Your task to perform on an android device: check google app version Image 0: 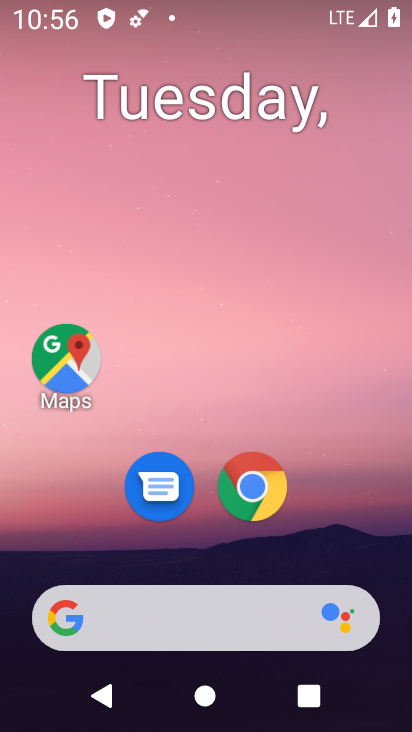
Step 0: drag from (320, 546) to (303, 115)
Your task to perform on an android device: check google app version Image 1: 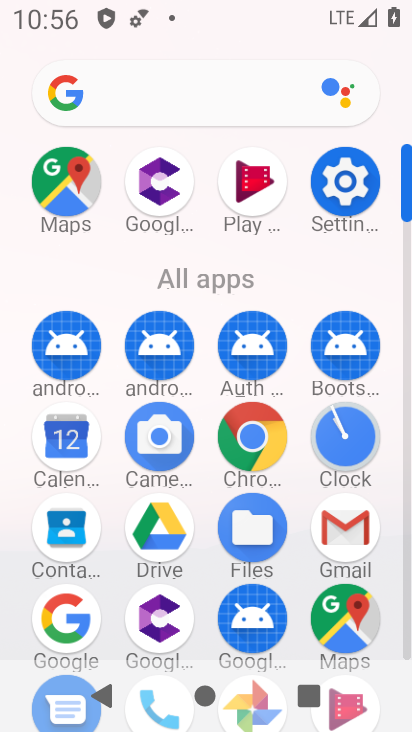
Step 1: drag from (291, 499) to (310, 228)
Your task to perform on an android device: check google app version Image 2: 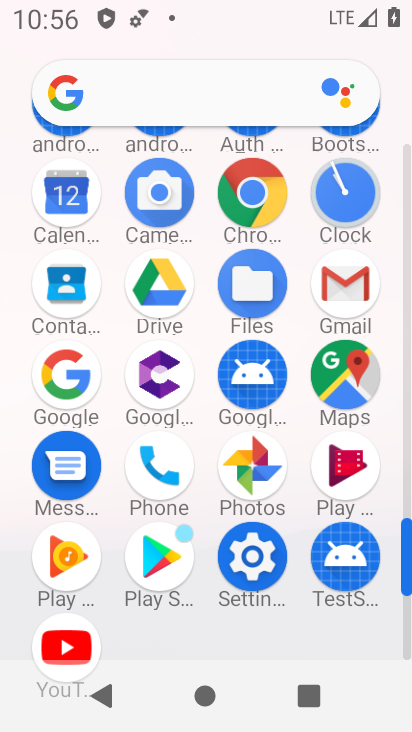
Step 2: click (72, 373)
Your task to perform on an android device: check google app version Image 3: 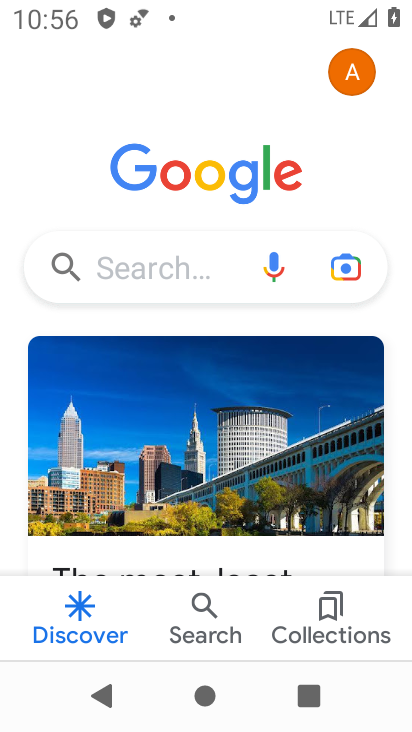
Step 3: click (349, 69)
Your task to perform on an android device: check google app version Image 4: 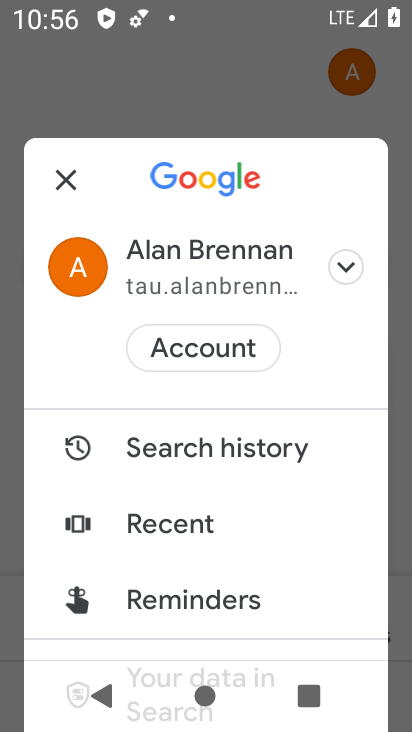
Step 4: drag from (341, 511) to (329, 394)
Your task to perform on an android device: check google app version Image 5: 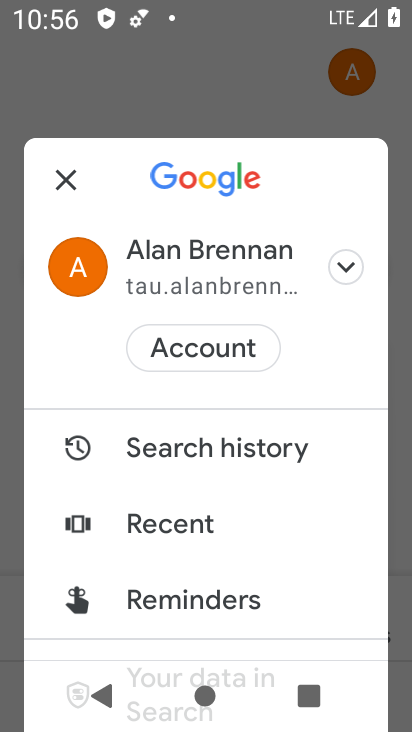
Step 5: drag from (329, 490) to (330, 234)
Your task to perform on an android device: check google app version Image 6: 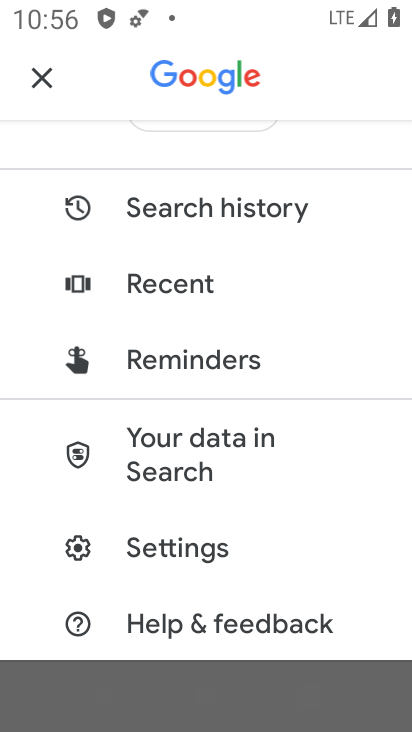
Step 6: click (219, 559)
Your task to perform on an android device: check google app version Image 7: 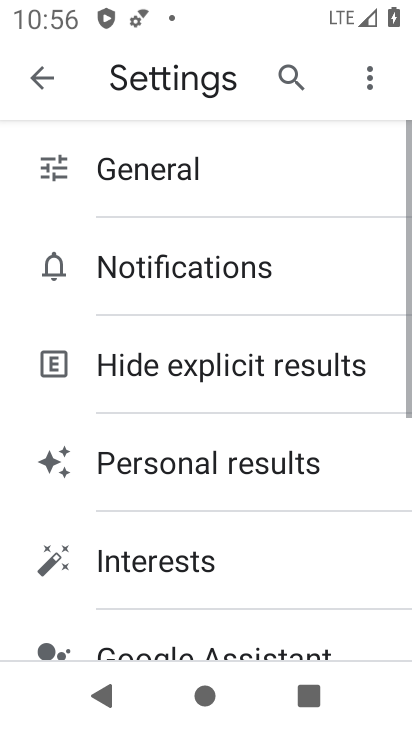
Step 7: drag from (323, 538) to (326, 317)
Your task to perform on an android device: check google app version Image 8: 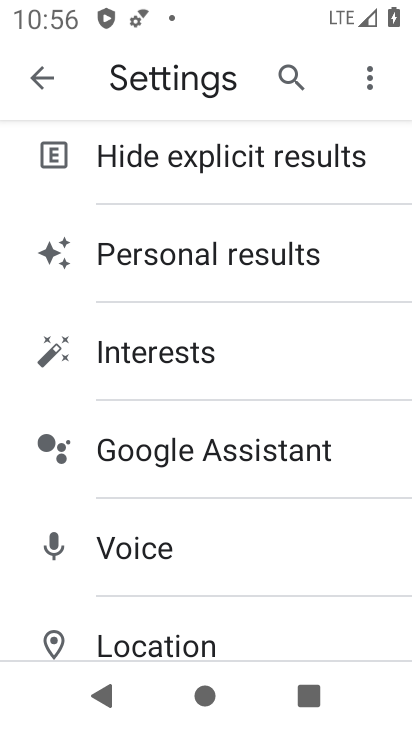
Step 8: drag from (324, 552) to (320, 273)
Your task to perform on an android device: check google app version Image 9: 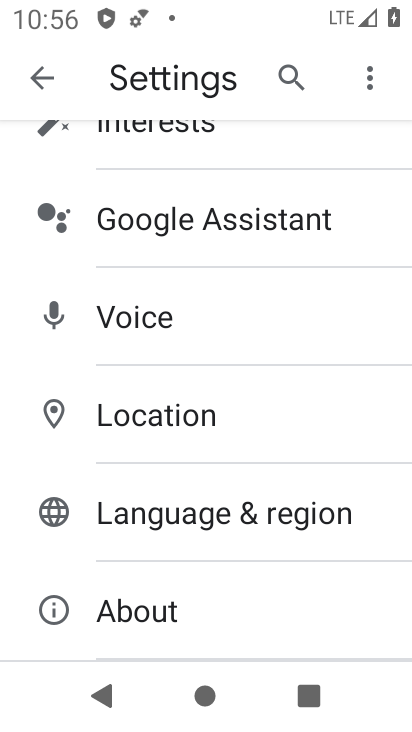
Step 9: click (264, 602)
Your task to perform on an android device: check google app version Image 10: 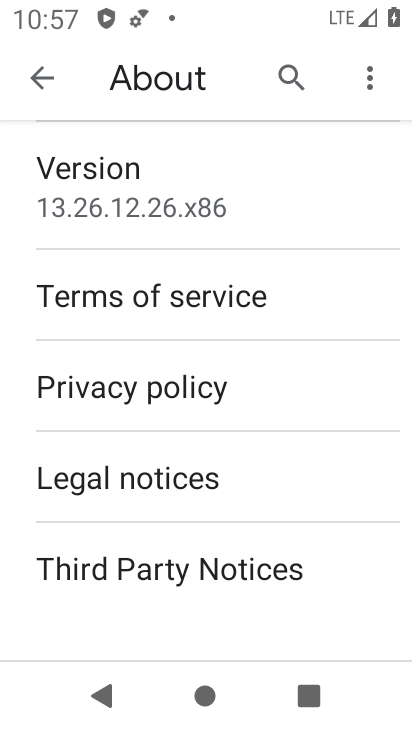
Step 10: task complete